Your task to perform on an android device: Open Maps and search for coffee Image 0: 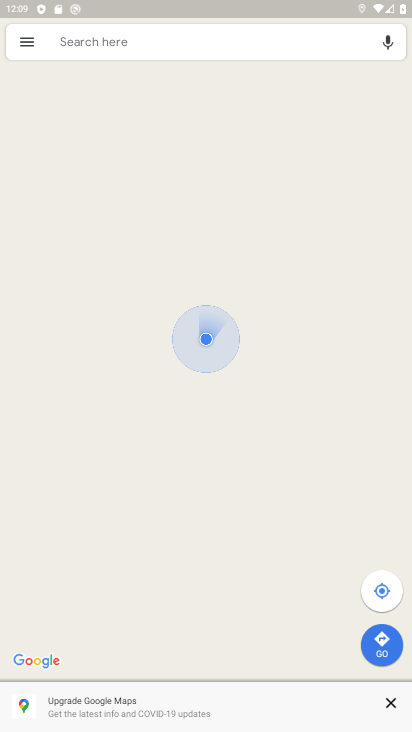
Step 0: click (102, 39)
Your task to perform on an android device: Open Maps and search for coffee Image 1: 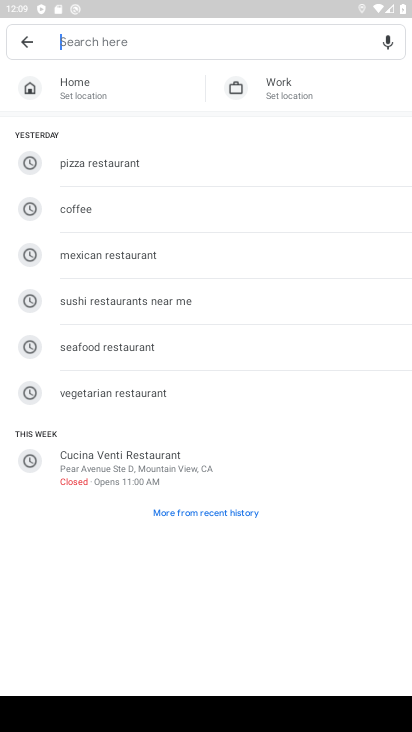
Step 1: click (66, 210)
Your task to perform on an android device: Open Maps and search for coffee Image 2: 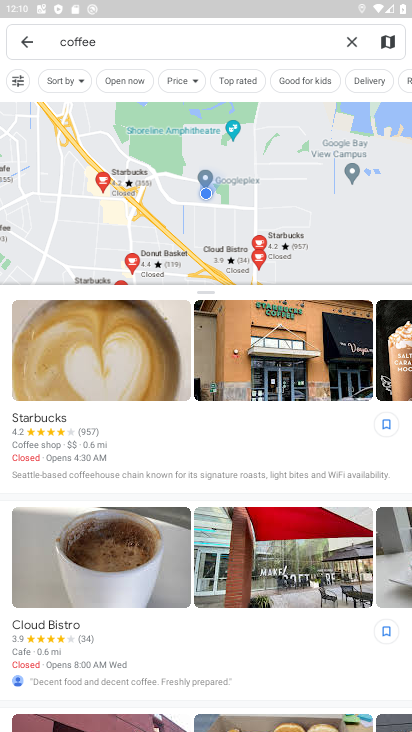
Step 2: task complete